Your task to perform on an android device: Search for "razer kraken" on target, select the first entry, and add it to the cart. Image 0: 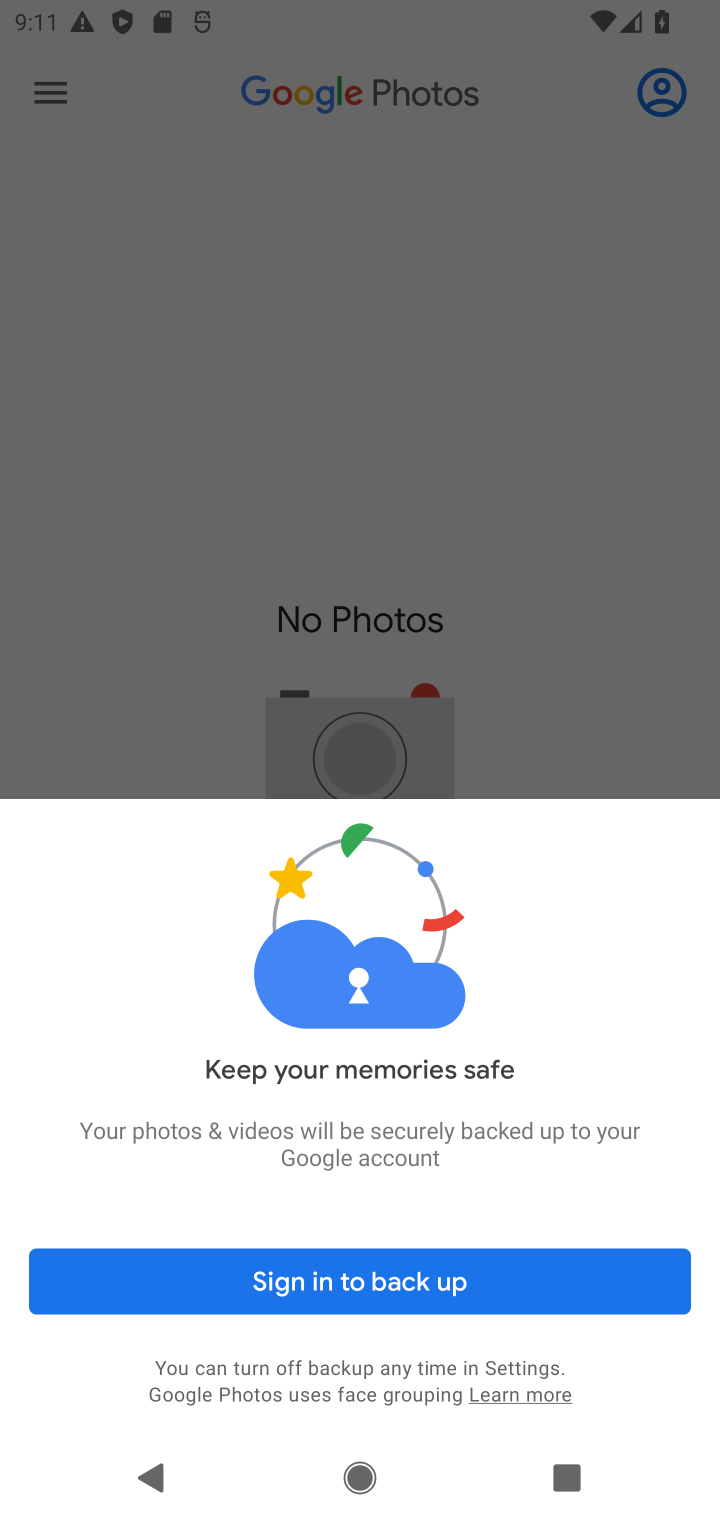
Step 0: press home button
Your task to perform on an android device: Search for "razer kraken" on target, select the first entry, and add it to the cart. Image 1: 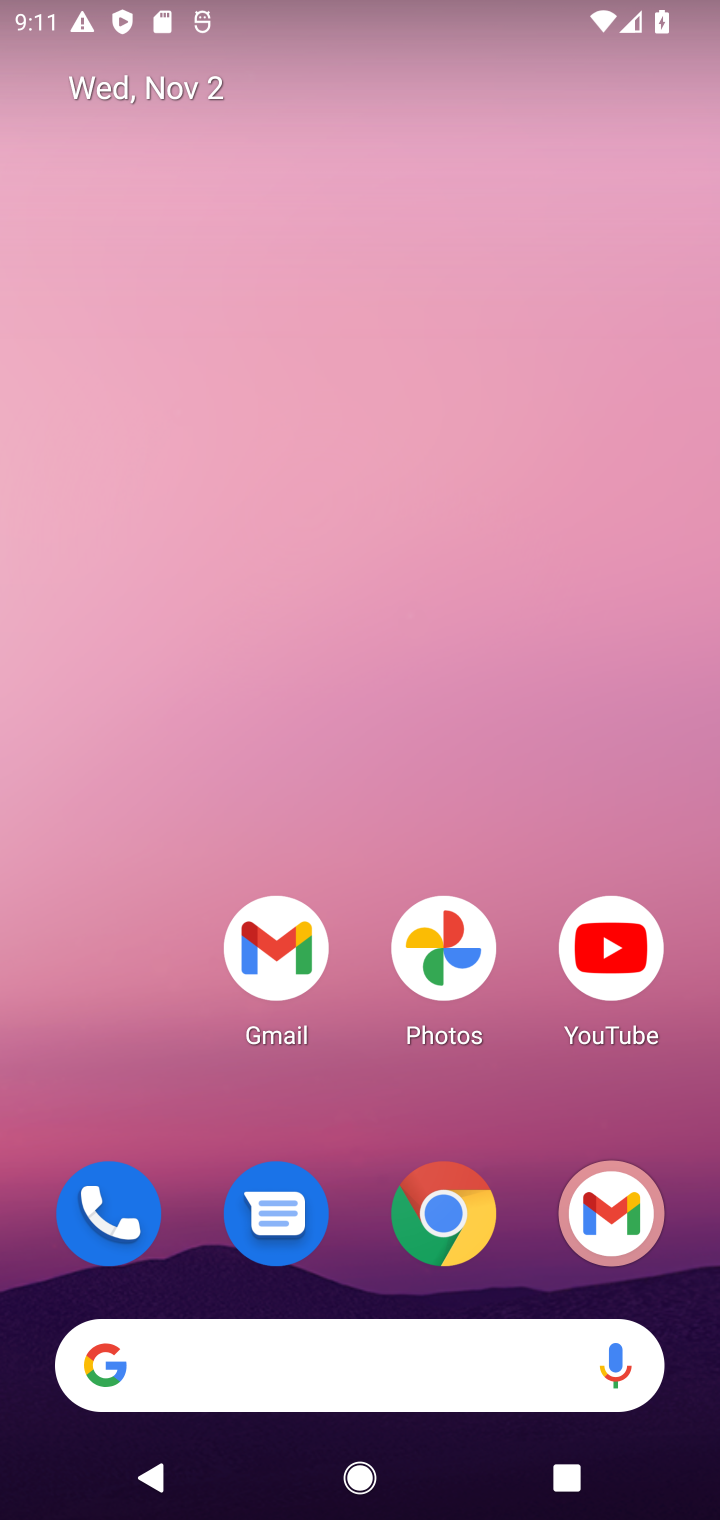
Step 1: click (431, 1229)
Your task to perform on an android device: Search for "razer kraken" on target, select the first entry, and add it to the cart. Image 2: 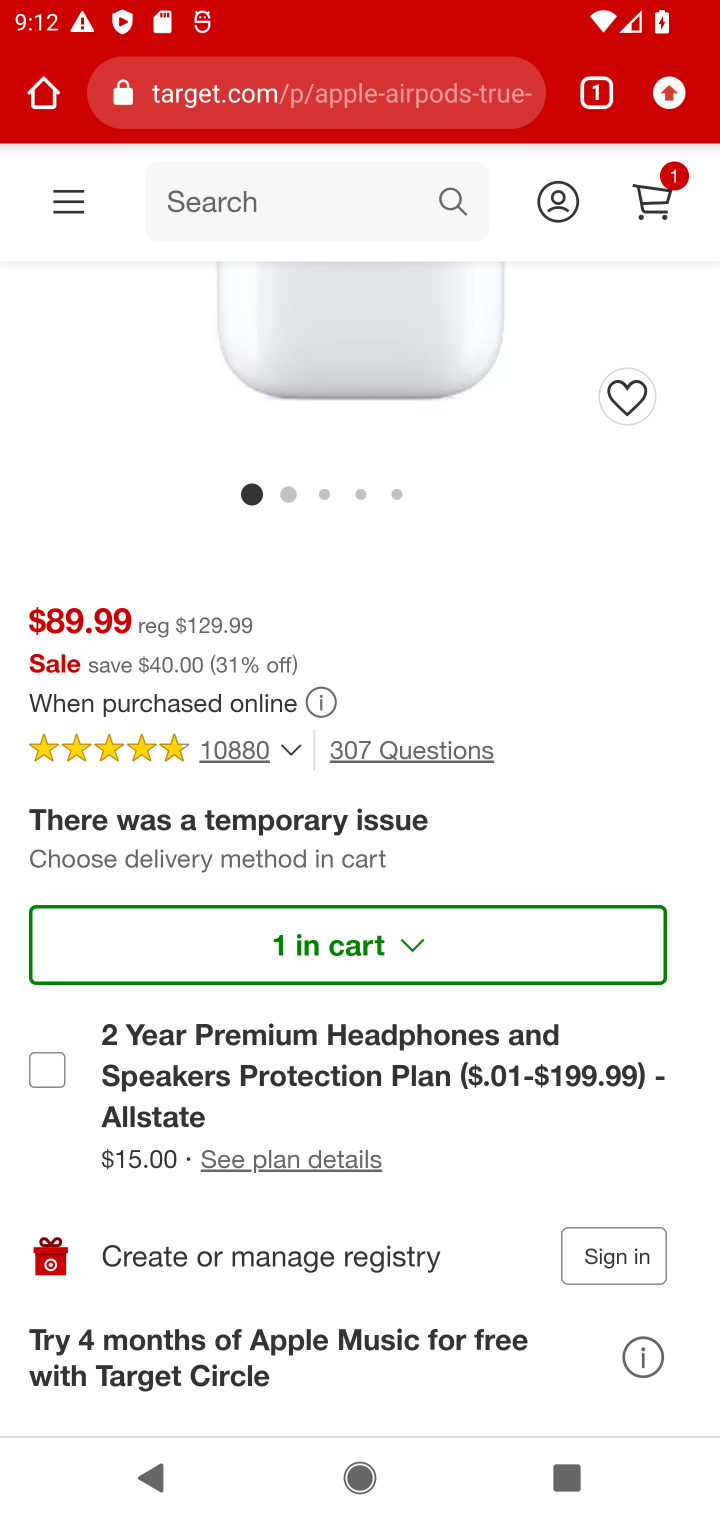
Step 2: click (348, 98)
Your task to perform on an android device: Search for "razer kraken" on target, select the first entry, and add it to the cart. Image 3: 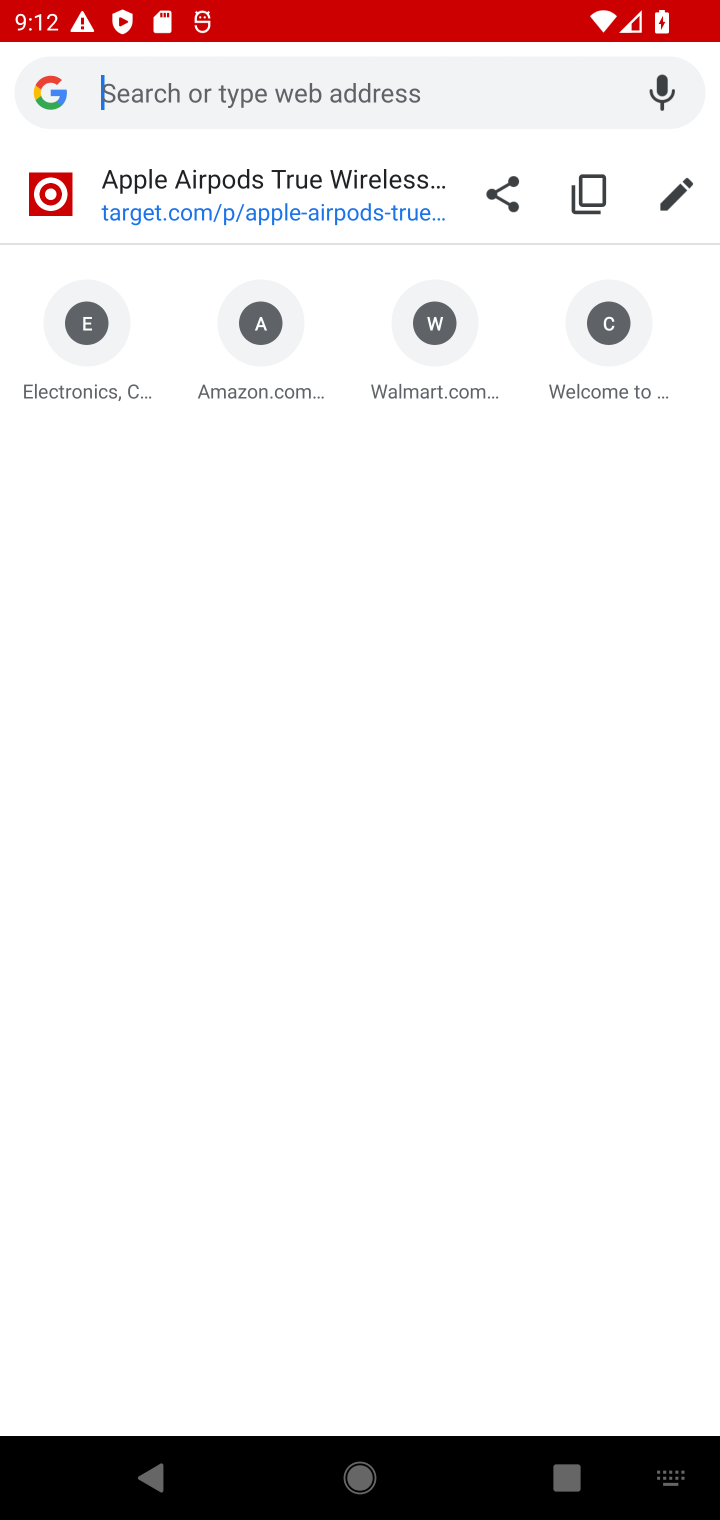
Step 3: type "target.com"
Your task to perform on an android device: Search for "razer kraken" on target, select the first entry, and add it to the cart. Image 4: 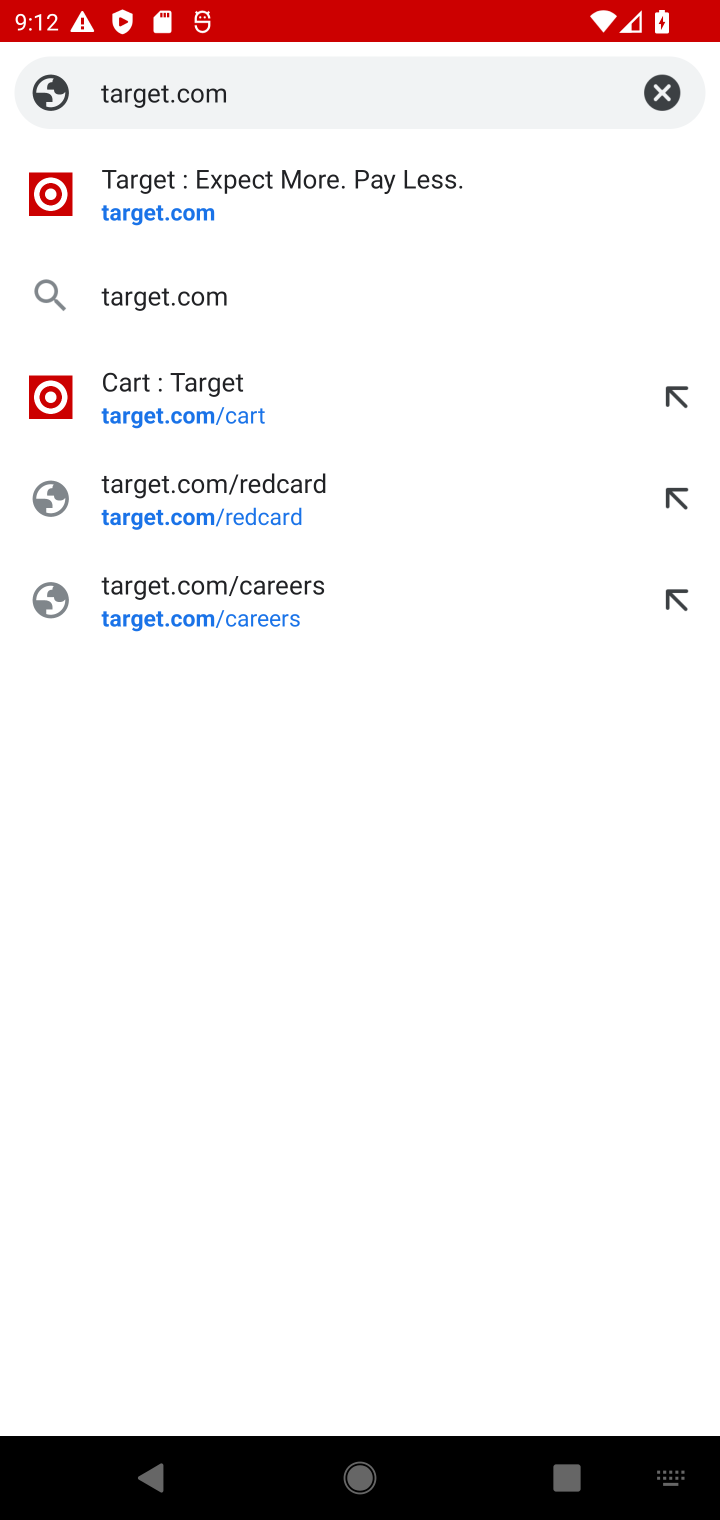
Step 4: click (163, 206)
Your task to perform on an android device: Search for "razer kraken" on target, select the first entry, and add it to the cart. Image 5: 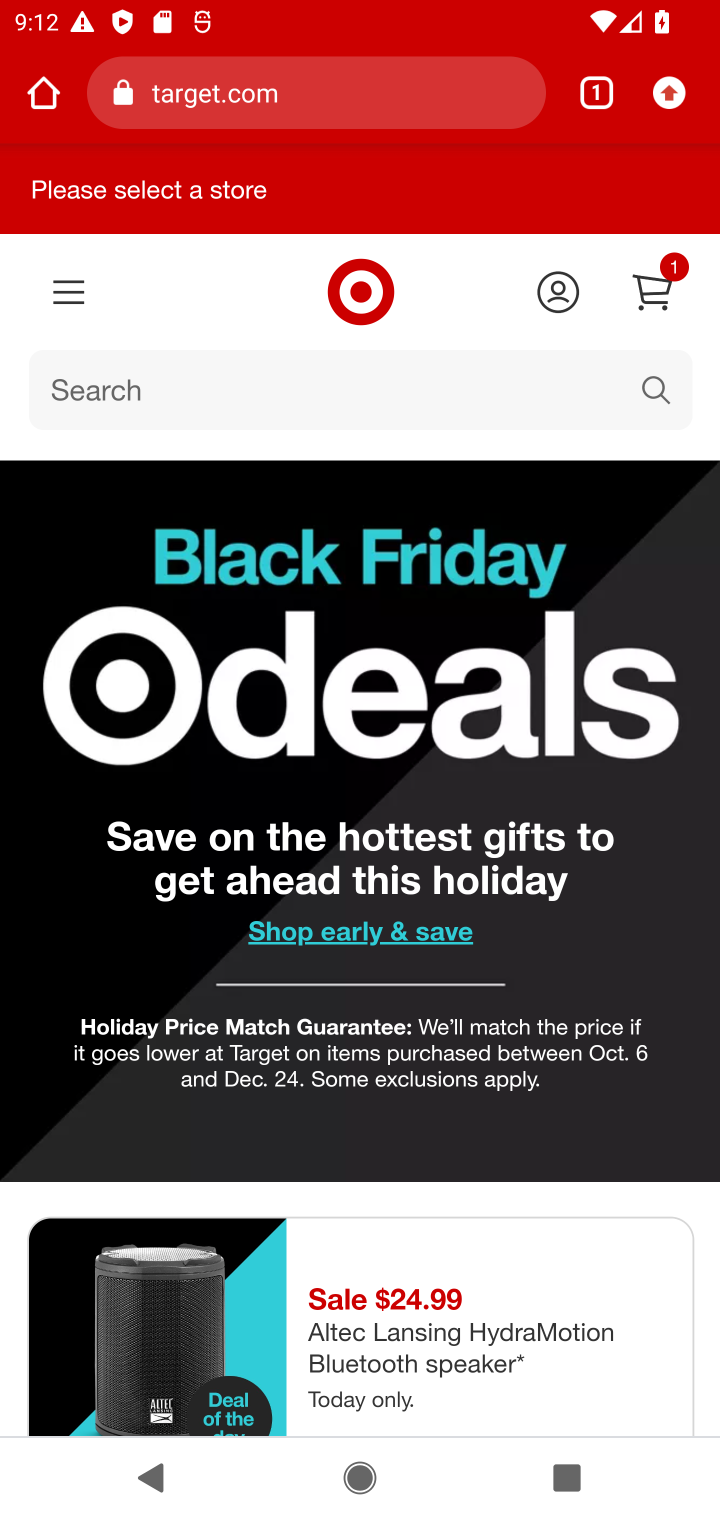
Step 5: click (96, 383)
Your task to perform on an android device: Search for "razer kraken" on target, select the first entry, and add it to the cart. Image 6: 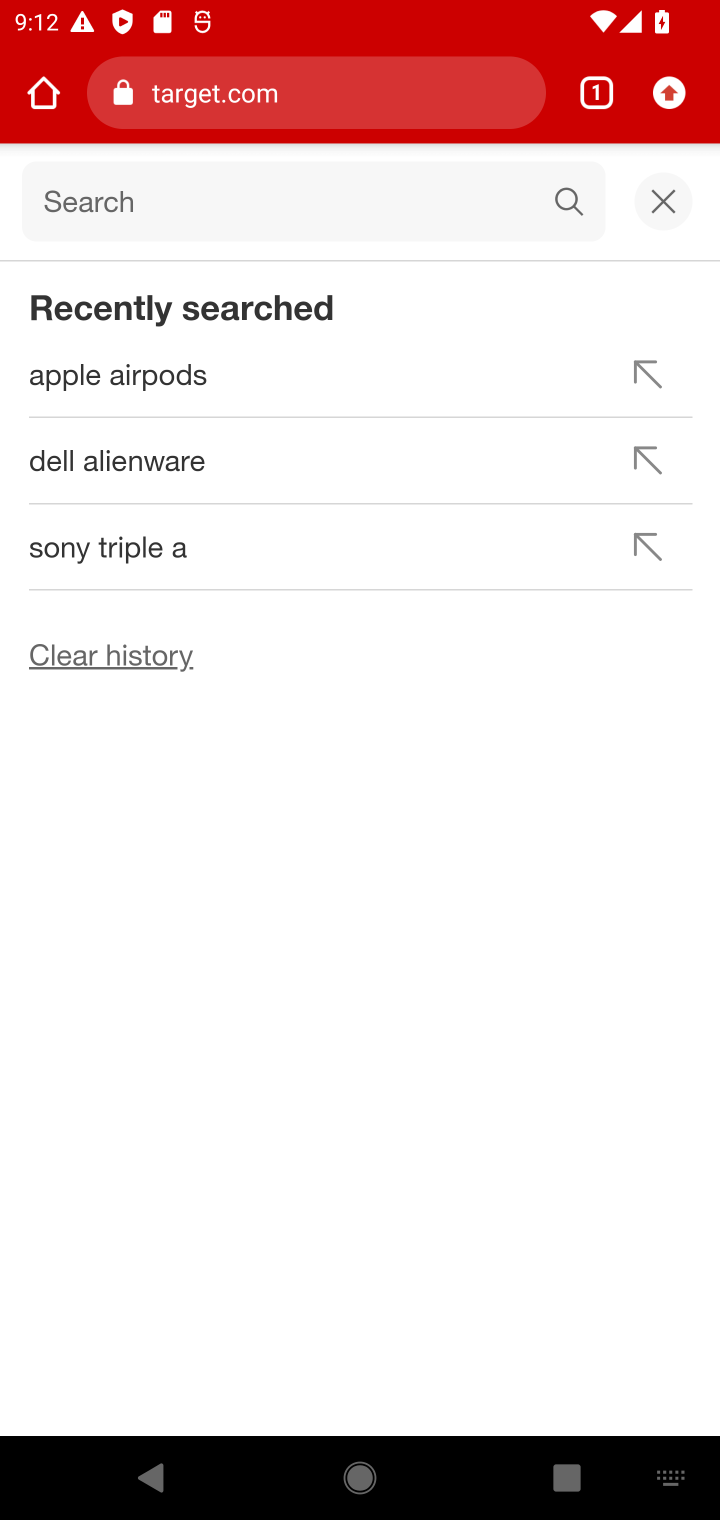
Step 6: type "razer kraken"
Your task to perform on an android device: Search for "razer kraken" on target, select the first entry, and add it to the cart. Image 7: 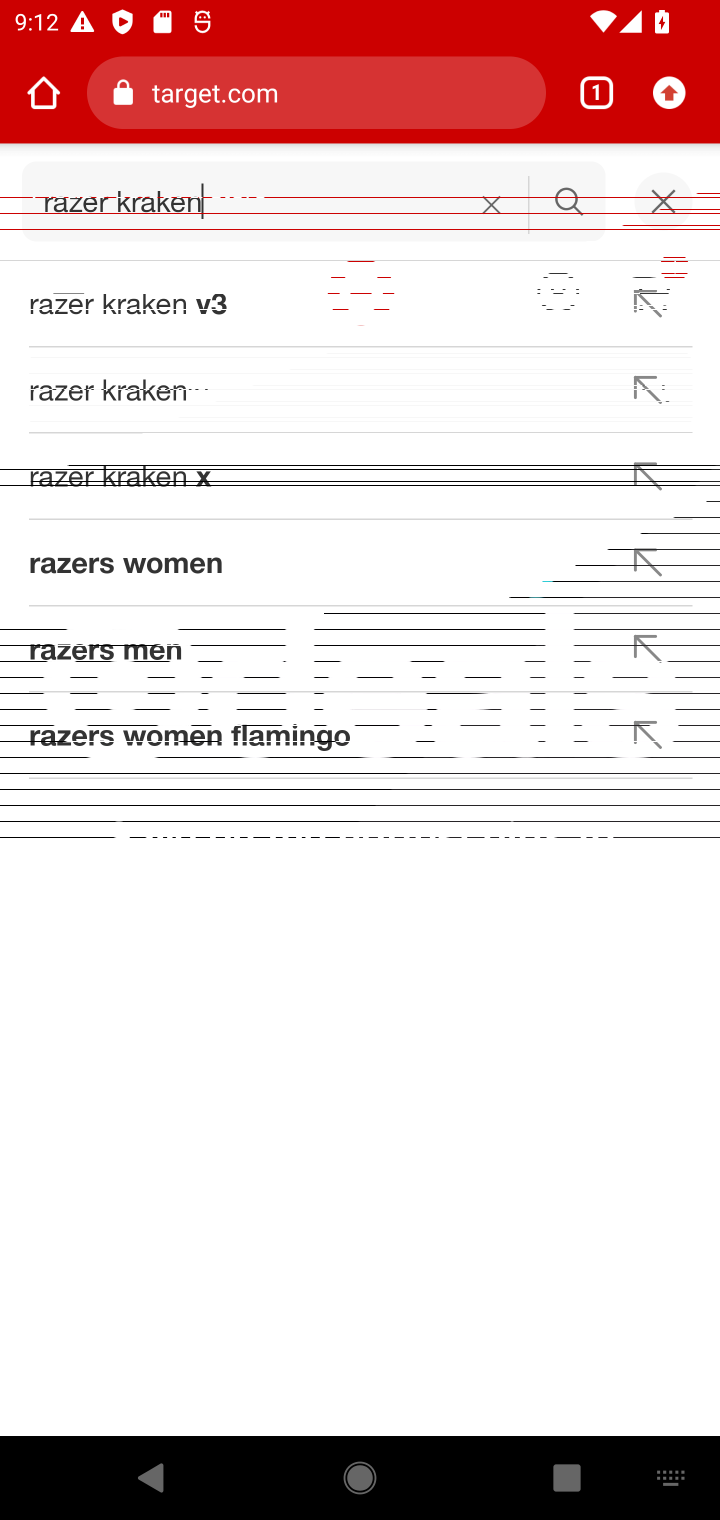
Step 7: click (127, 387)
Your task to perform on an android device: Search for "razer kraken" on target, select the first entry, and add it to the cart. Image 8: 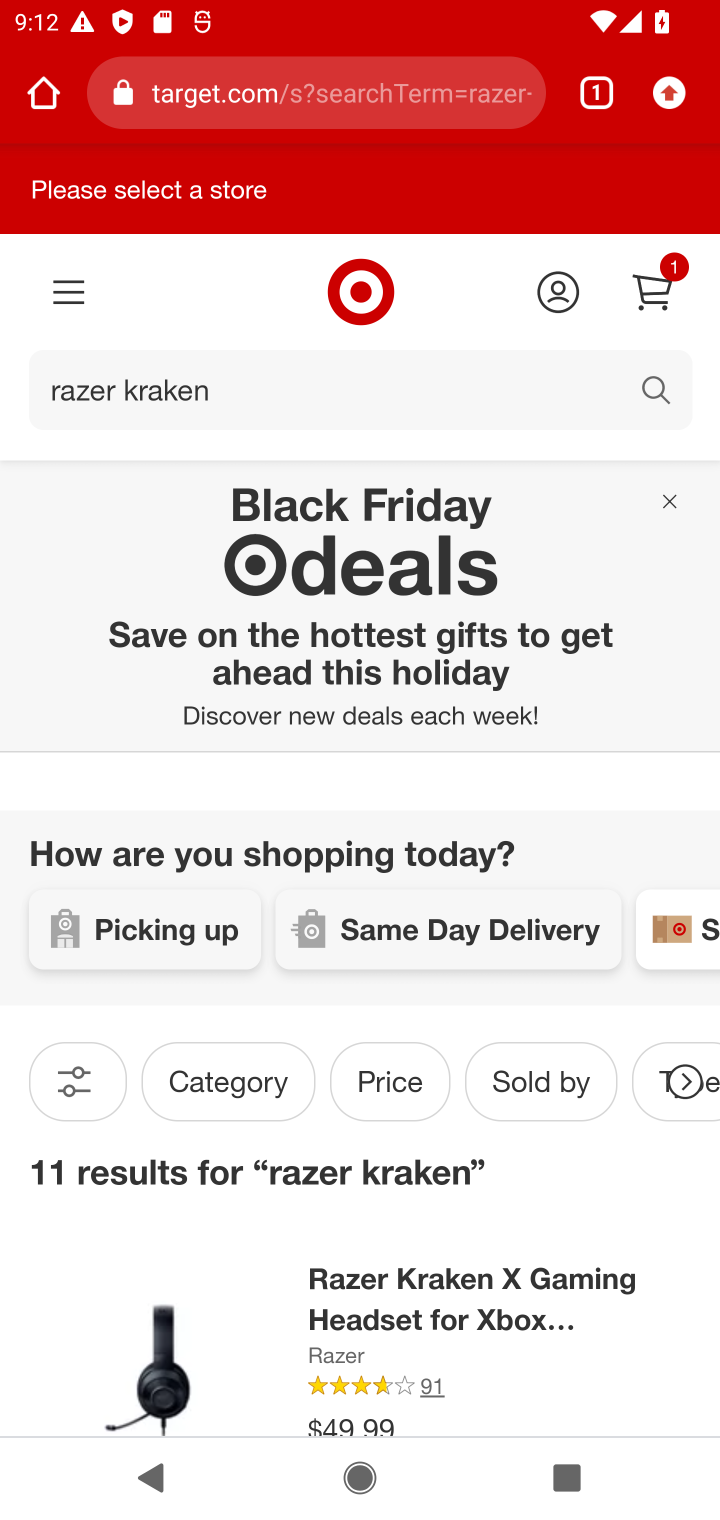
Step 8: click (388, 1313)
Your task to perform on an android device: Search for "razer kraken" on target, select the first entry, and add it to the cart. Image 9: 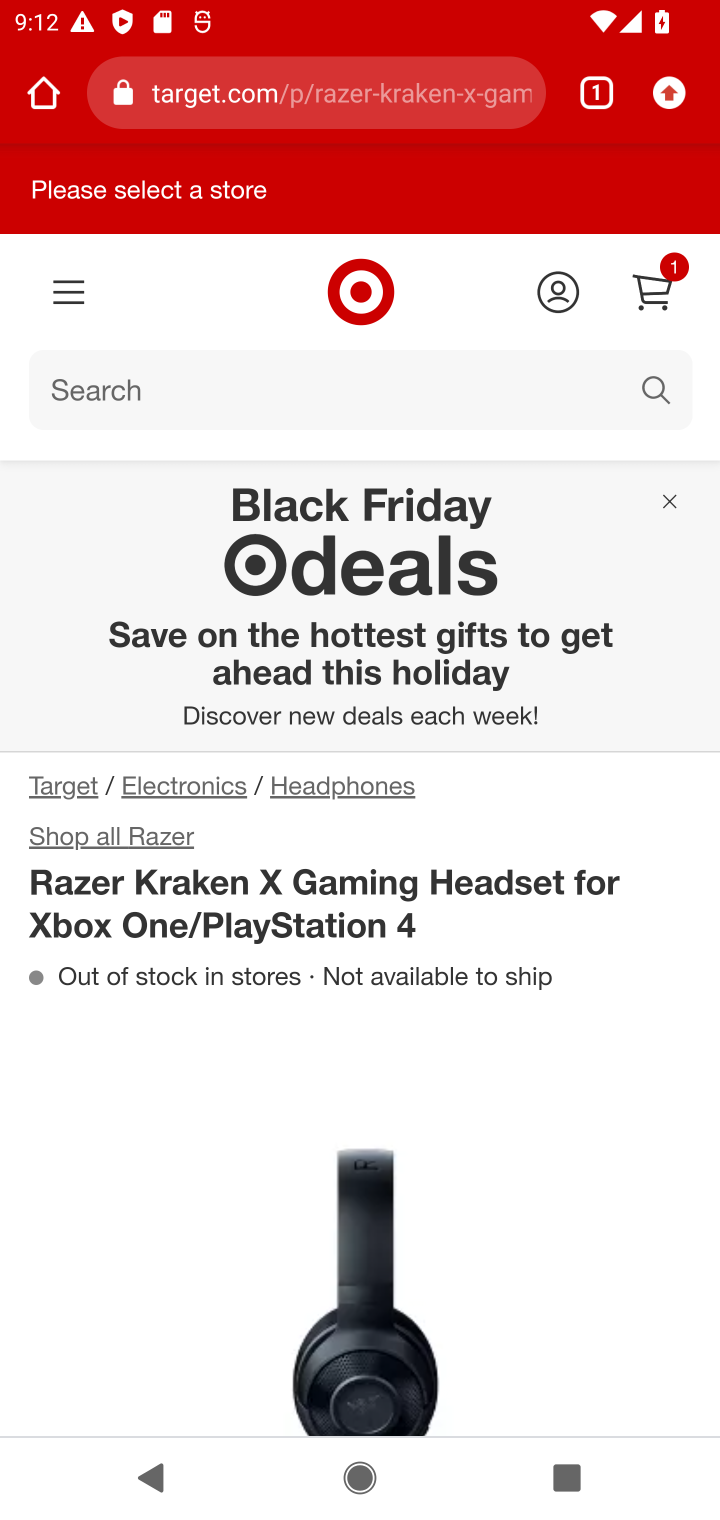
Step 9: drag from (447, 1261) to (484, 470)
Your task to perform on an android device: Search for "razer kraken" on target, select the first entry, and add it to the cart. Image 10: 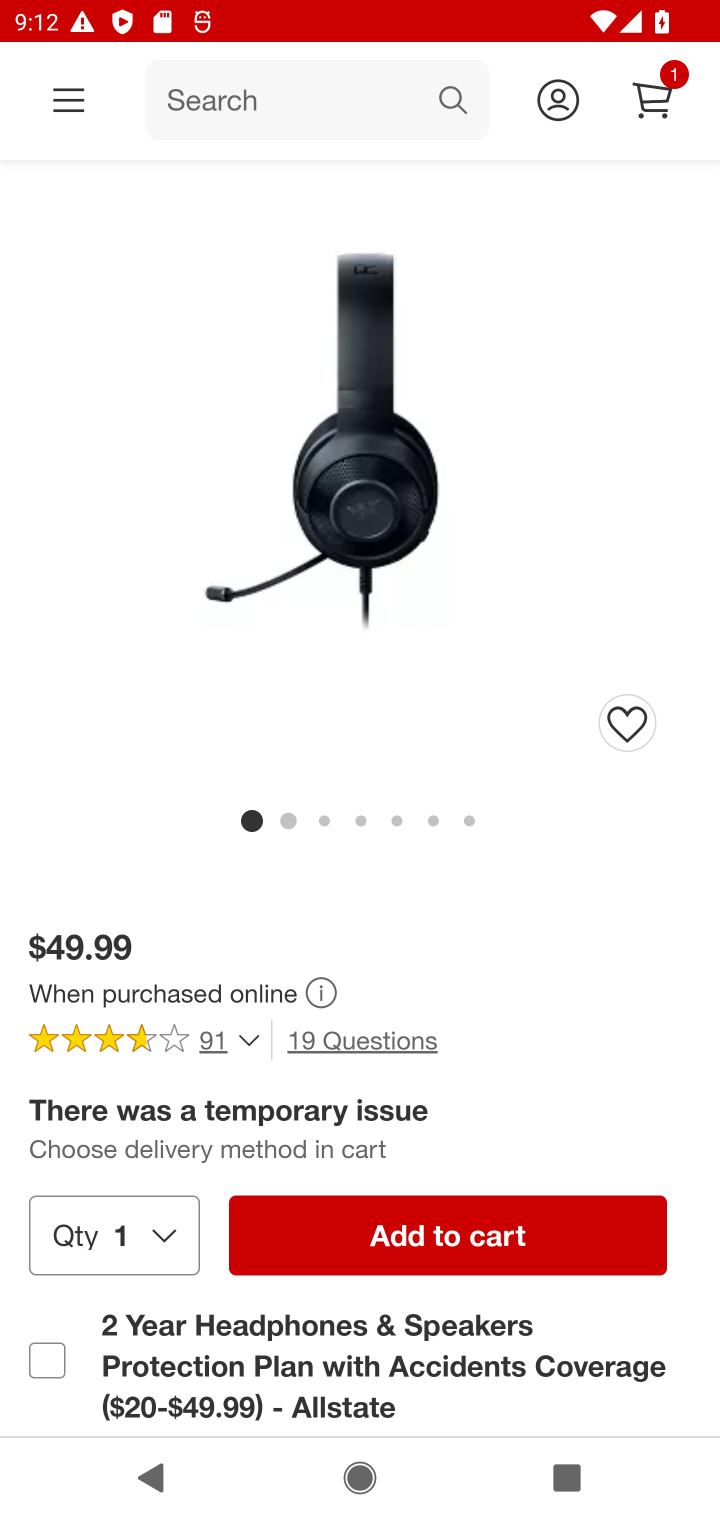
Step 10: click (410, 1237)
Your task to perform on an android device: Search for "razer kraken" on target, select the first entry, and add it to the cart. Image 11: 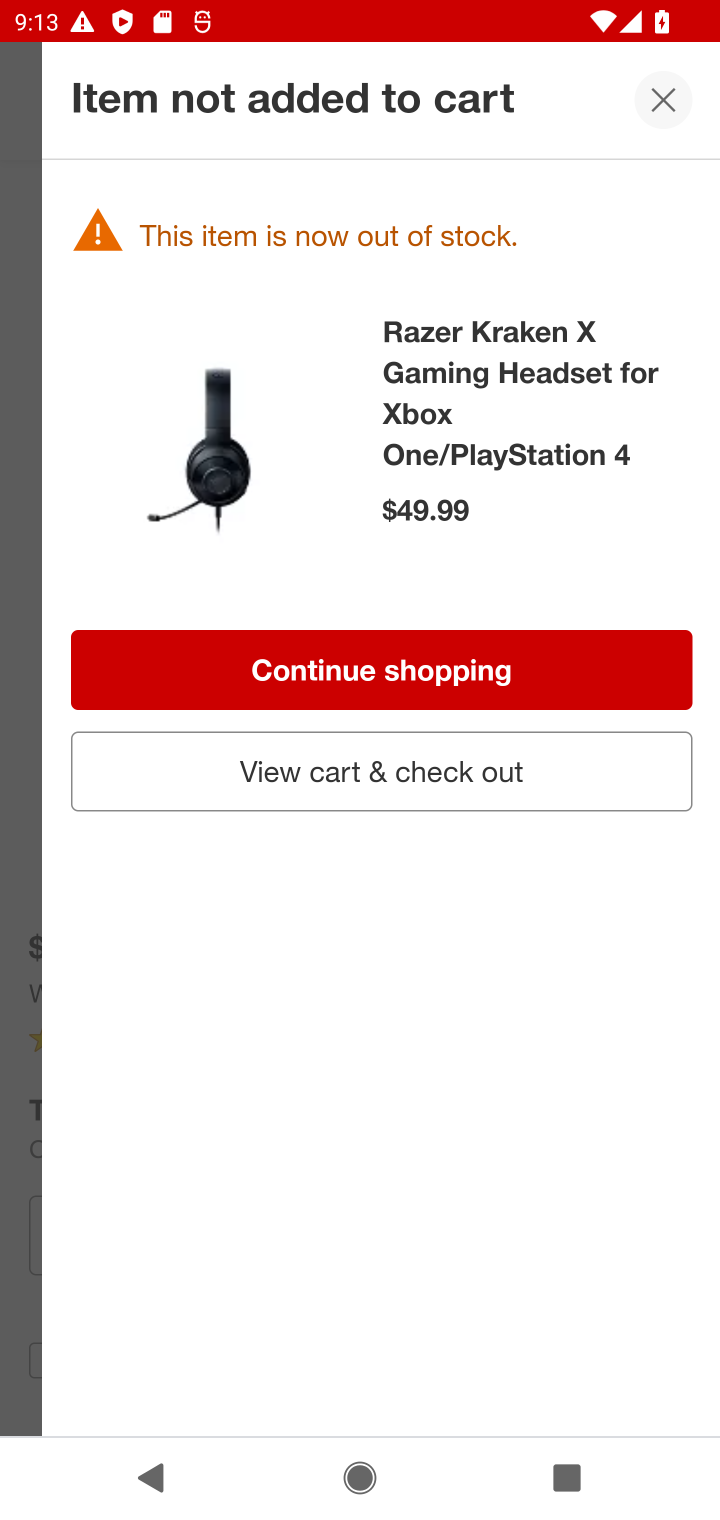
Step 11: task complete